Your task to perform on an android device: turn off notifications in google photos Image 0: 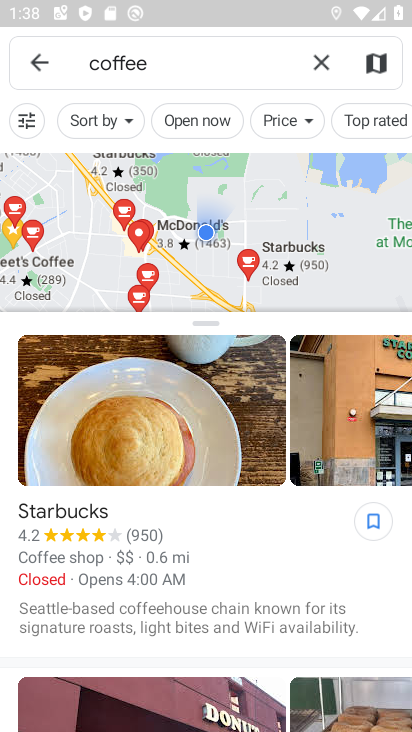
Step 0: press home button
Your task to perform on an android device: turn off notifications in google photos Image 1: 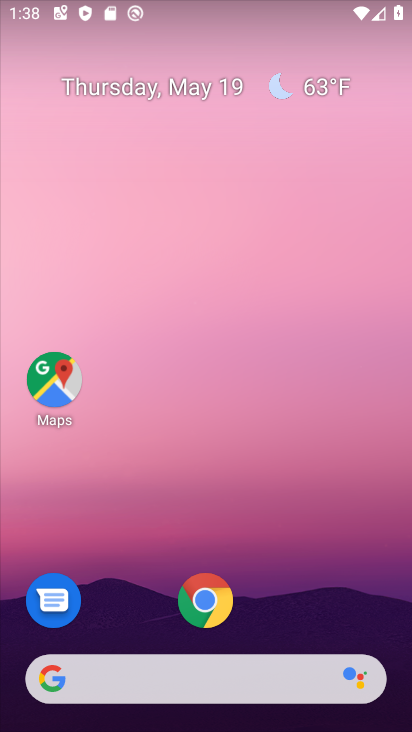
Step 1: drag from (335, 590) to (312, 188)
Your task to perform on an android device: turn off notifications in google photos Image 2: 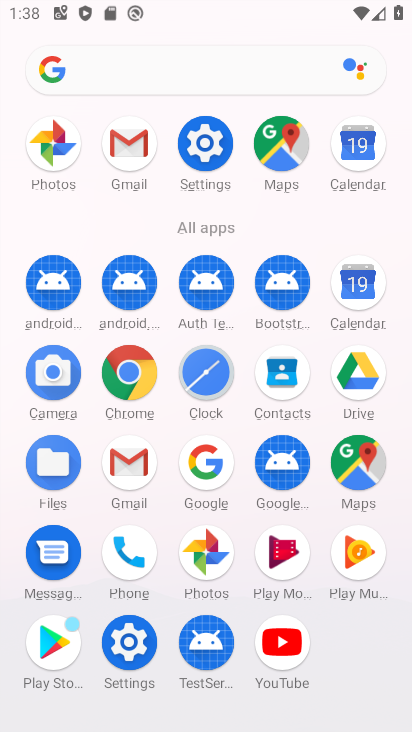
Step 2: click (203, 550)
Your task to perform on an android device: turn off notifications in google photos Image 3: 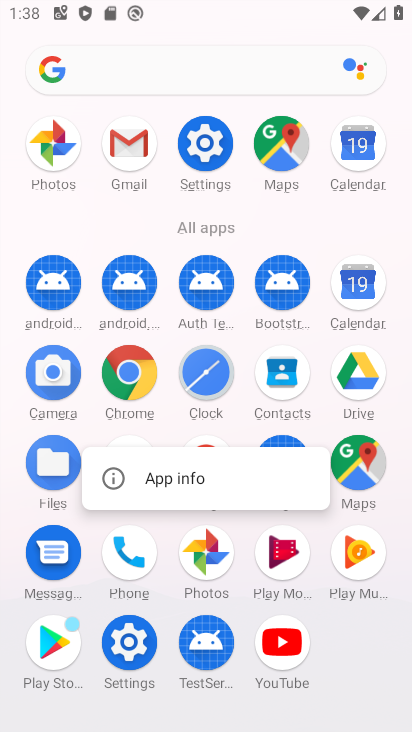
Step 3: click (116, 481)
Your task to perform on an android device: turn off notifications in google photos Image 4: 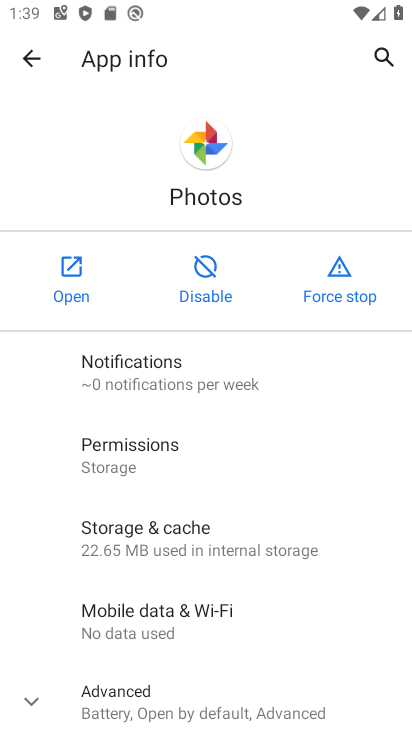
Step 4: click (148, 377)
Your task to perform on an android device: turn off notifications in google photos Image 5: 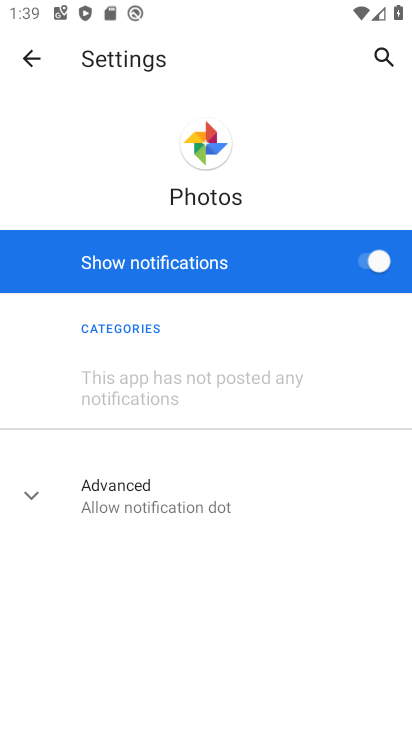
Step 5: click (370, 269)
Your task to perform on an android device: turn off notifications in google photos Image 6: 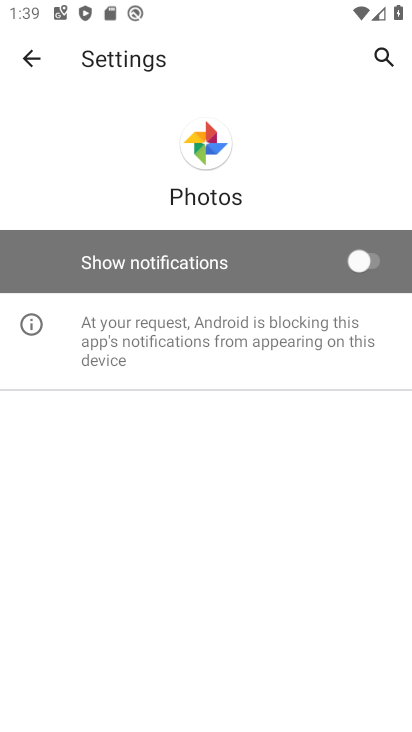
Step 6: task complete